Your task to perform on an android device: toggle airplane mode Image 0: 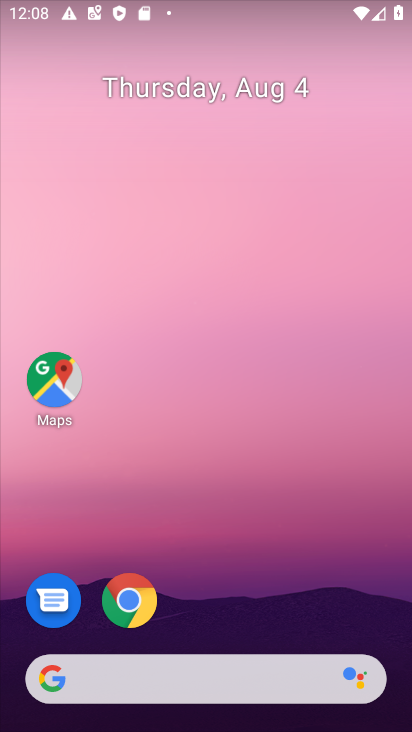
Step 0: drag from (153, 675) to (242, 115)
Your task to perform on an android device: toggle airplane mode Image 1: 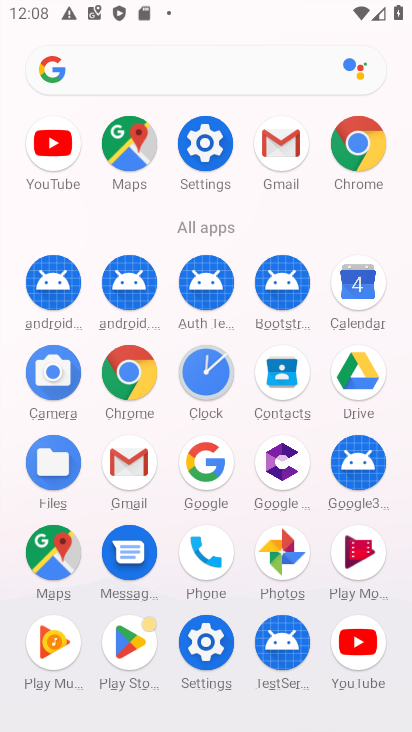
Step 1: click (208, 138)
Your task to perform on an android device: toggle airplane mode Image 2: 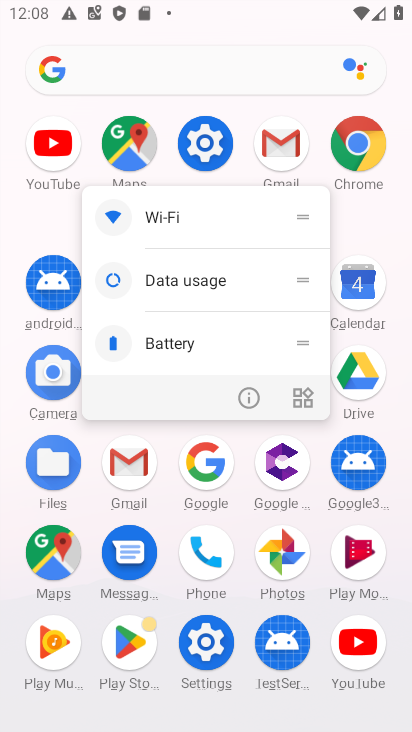
Step 2: click (201, 144)
Your task to perform on an android device: toggle airplane mode Image 3: 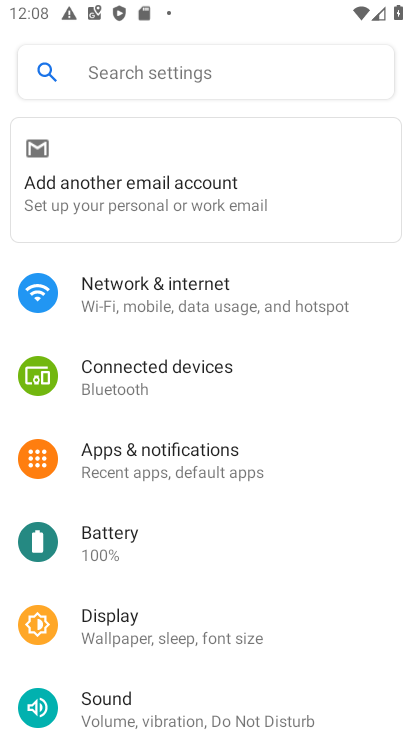
Step 3: click (181, 291)
Your task to perform on an android device: toggle airplane mode Image 4: 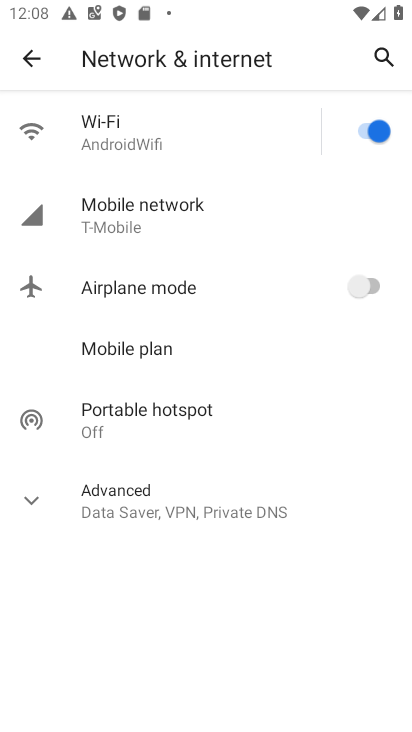
Step 4: click (371, 279)
Your task to perform on an android device: toggle airplane mode Image 5: 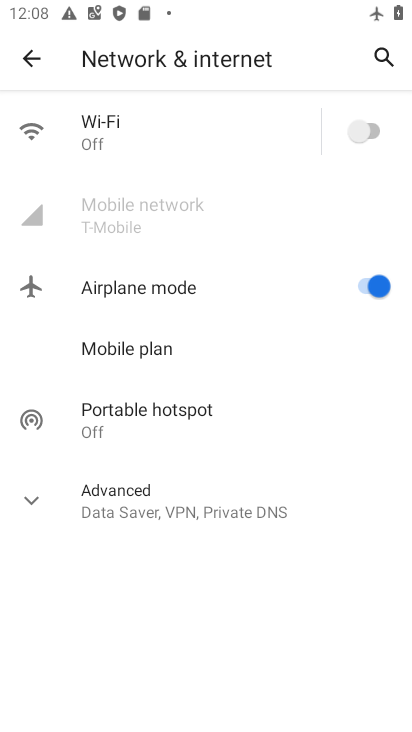
Step 5: click (363, 285)
Your task to perform on an android device: toggle airplane mode Image 6: 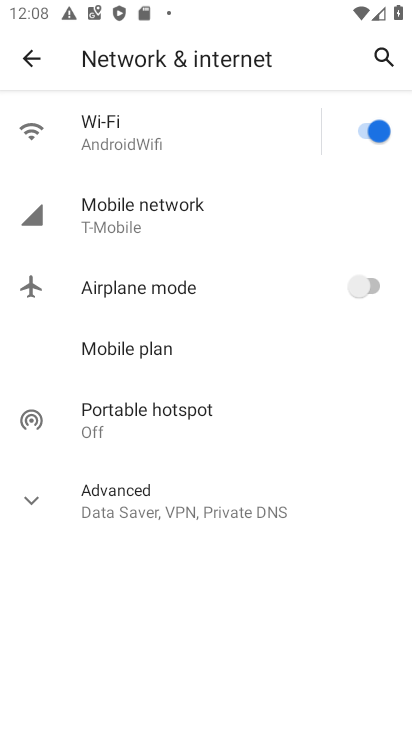
Step 6: task complete